Your task to perform on an android device: turn on airplane mode Image 0: 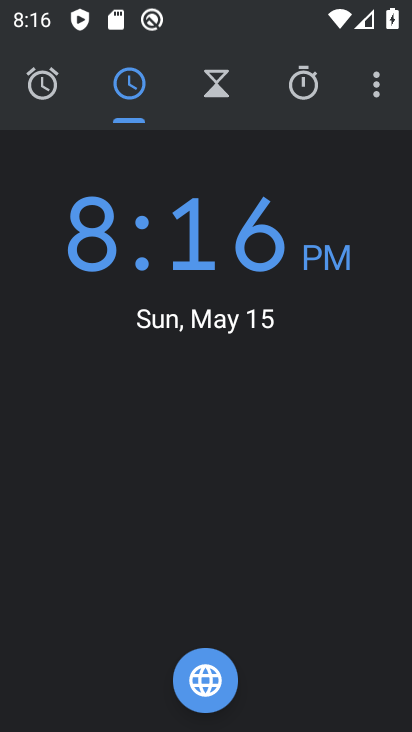
Step 0: press home button
Your task to perform on an android device: turn on airplane mode Image 1: 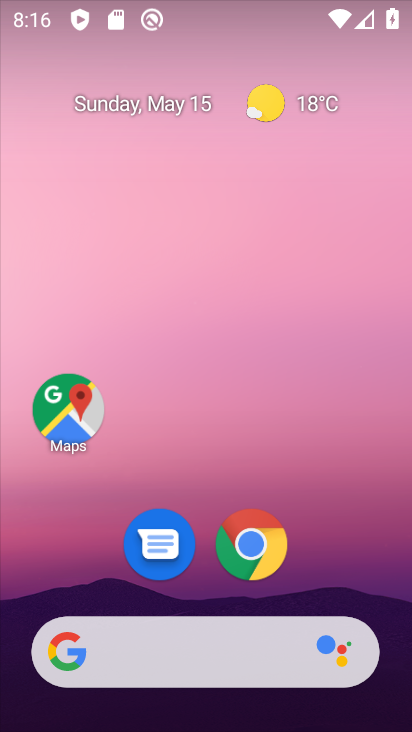
Step 1: drag from (257, 7) to (281, 544)
Your task to perform on an android device: turn on airplane mode Image 2: 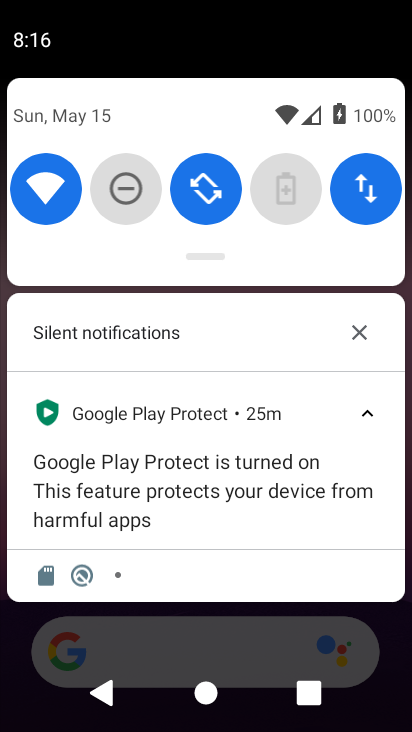
Step 2: drag from (296, 345) to (336, 567)
Your task to perform on an android device: turn on airplane mode Image 3: 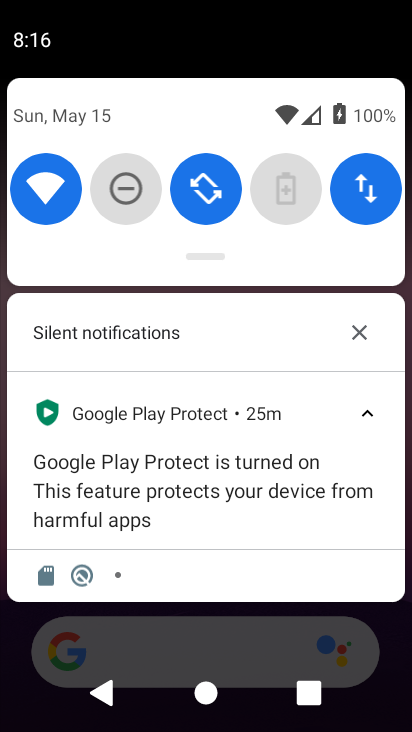
Step 3: drag from (200, 290) to (234, 681)
Your task to perform on an android device: turn on airplane mode Image 4: 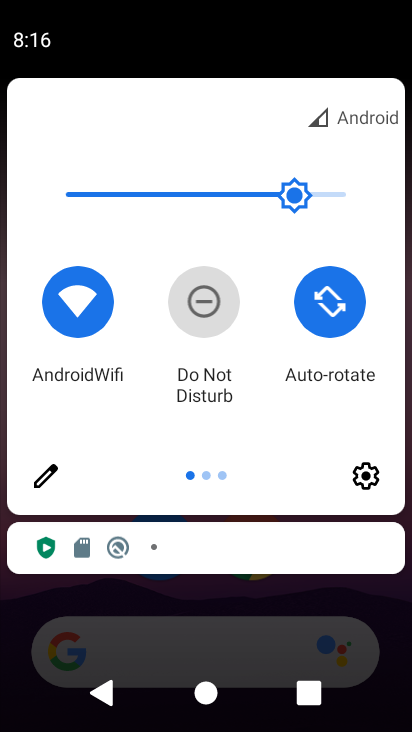
Step 4: drag from (359, 316) to (60, 328)
Your task to perform on an android device: turn on airplane mode Image 5: 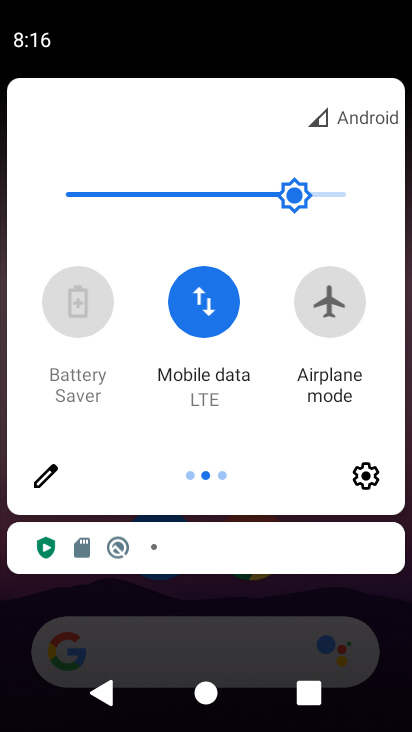
Step 5: click (322, 295)
Your task to perform on an android device: turn on airplane mode Image 6: 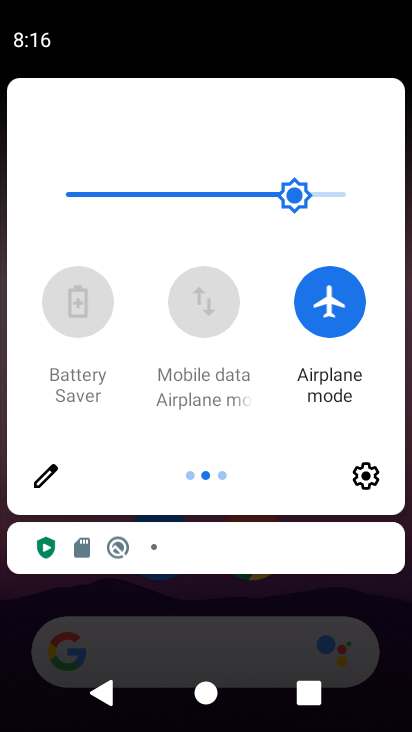
Step 6: task complete